Your task to perform on an android device: Go to display settings Image 0: 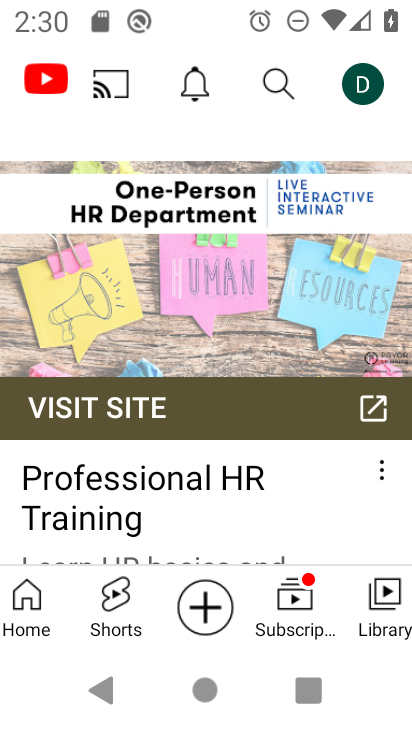
Step 0: press home button
Your task to perform on an android device: Go to display settings Image 1: 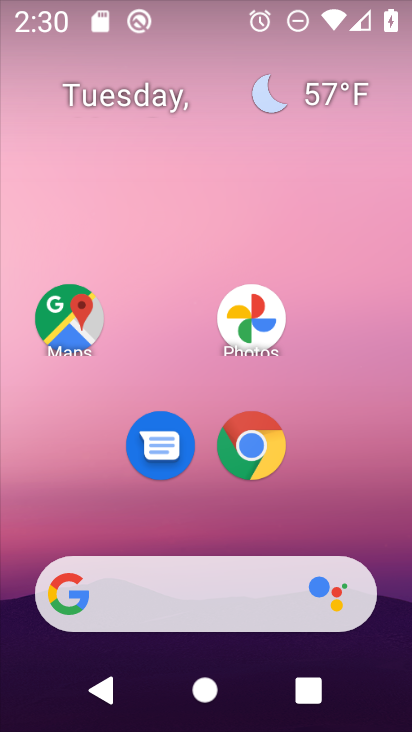
Step 1: drag from (389, 565) to (378, 189)
Your task to perform on an android device: Go to display settings Image 2: 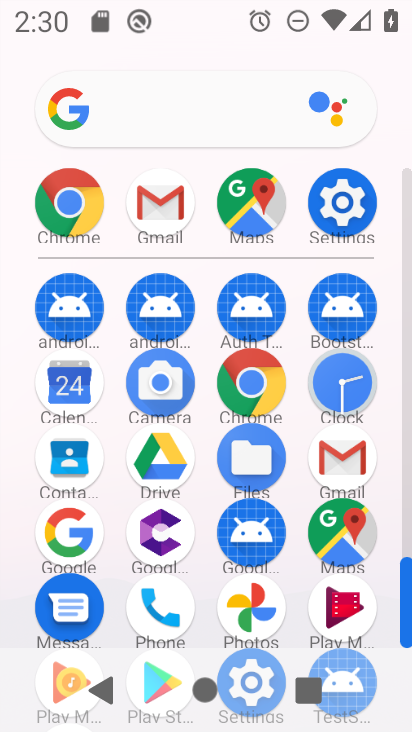
Step 2: drag from (386, 628) to (387, 456)
Your task to perform on an android device: Go to display settings Image 3: 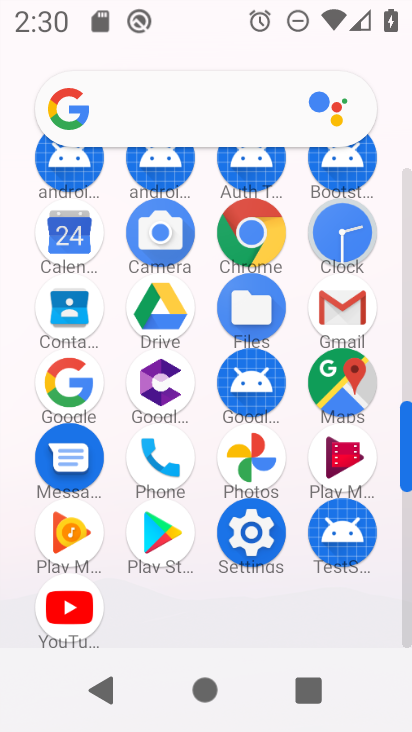
Step 3: click (258, 556)
Your task to perform on an android device: Go to display settings Image 4: 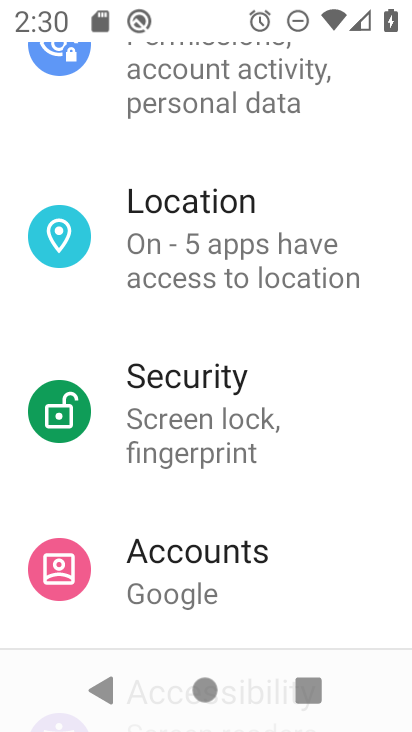
Step 4: drag from (347, 337) to (356, 466)
Your task to perform on an android device: Go to display settings Image 5: 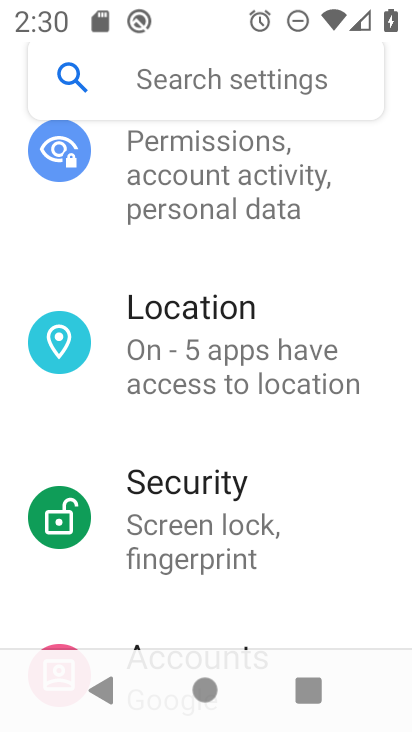
Step 5: drag from (359, 300) to (360, 456)
Your task to perform on an android device: Go to display settings Image 6: 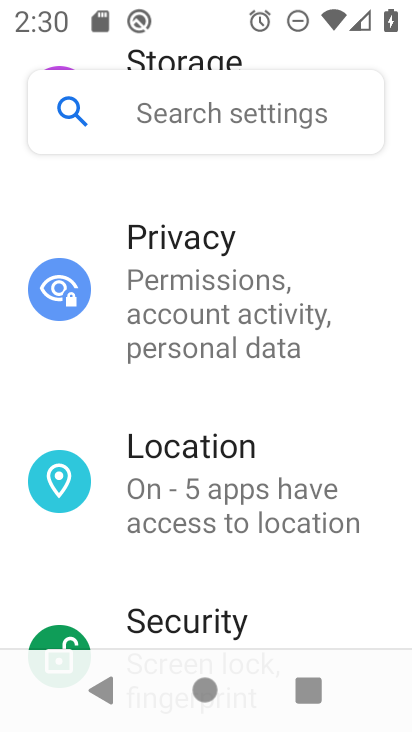
Step 6: drag from (362, 264) to (365, 411)
Your task to perform on an android device: Go to display settings Image 7: 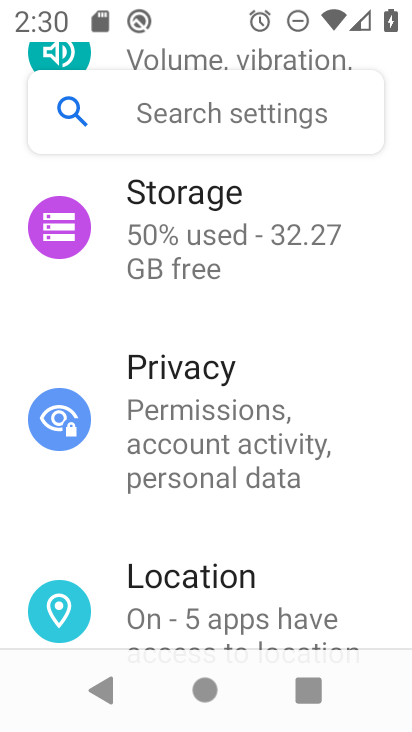
Step 7: drag from (367, 235) to (370, 397)
Your task to perform on an android device: Go to display settings Image 8: 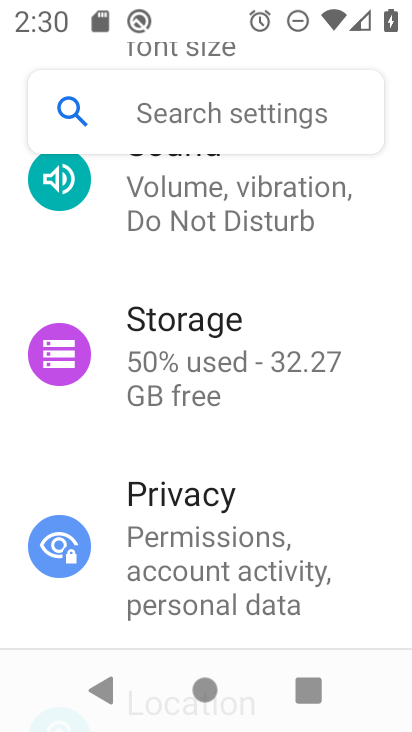
Step 8: drag from (365, 239) to (365, 384)
Your task to perform on an android device: Go to display settings Image 9: 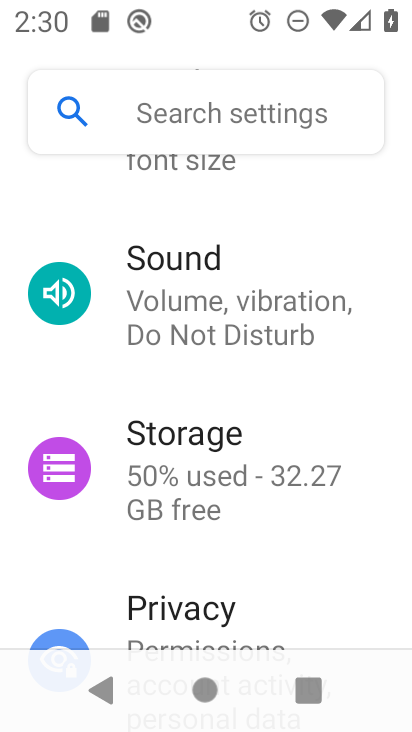
Step 9: drag from (365, 215) to (368, 375)
Your task to perform on an android device: Go to display settings Image 10: 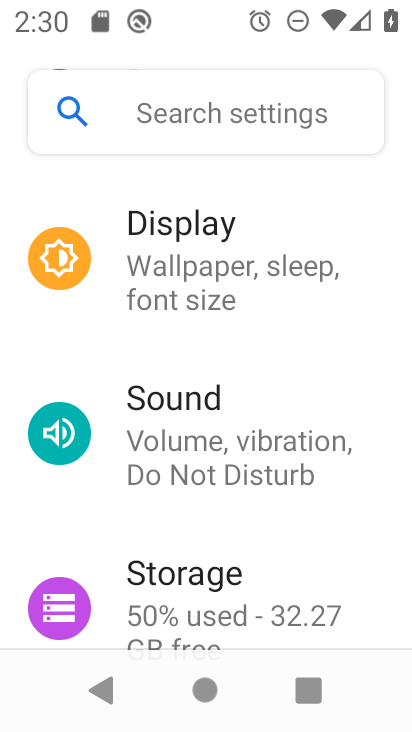
Step 10: drag from (368, 221) to (370, 365)
Your task to perform on an android device: Go to display settings Image 11: 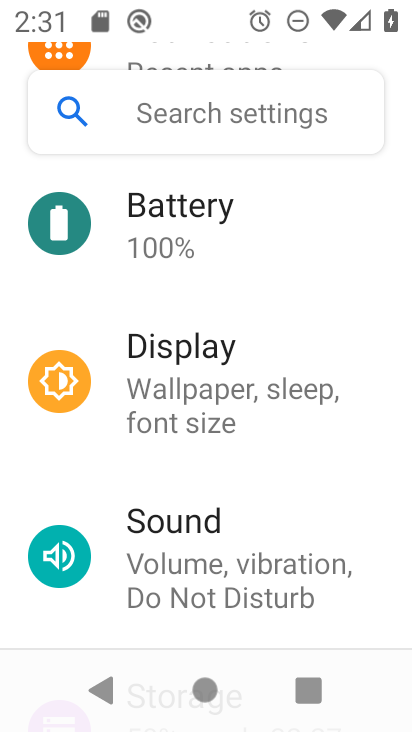
Step 11: drag from (366, 262) to (376, 427)
Your task to perform on an android device: Go to display settings Image 12: 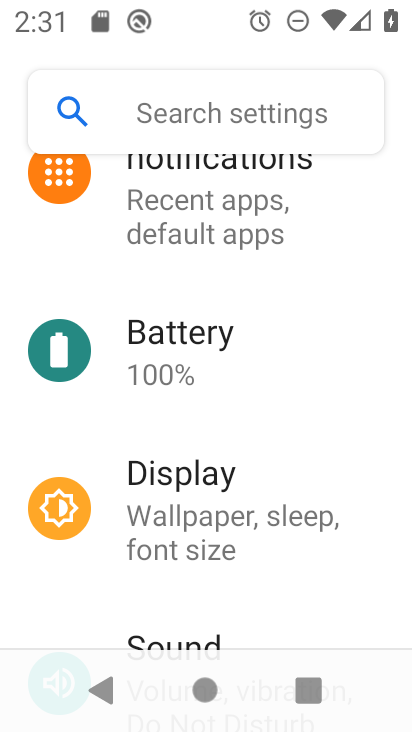
Step 12: click (275, 527)
Your task to perform on an android device: Go to display settings Image 13: 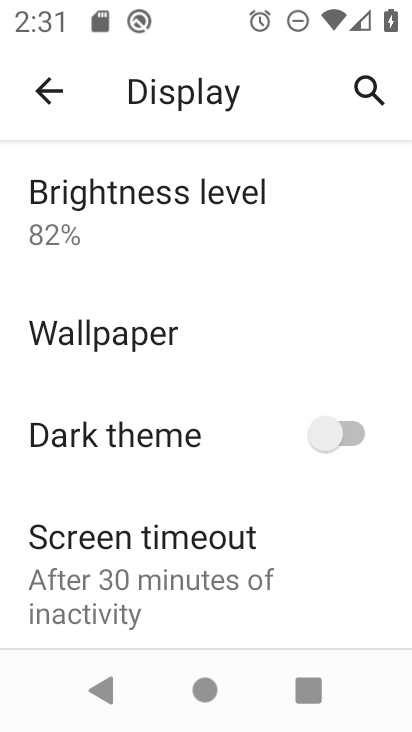
Step 13: task complete